Your task to perform on an android device: Go to location settings Image 0: 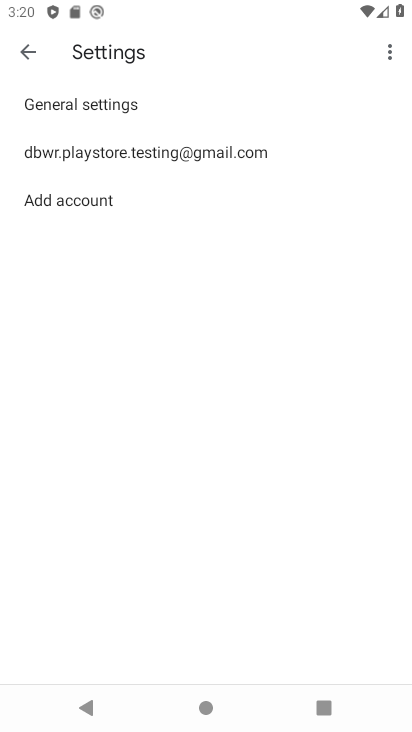
Step 0: press home button
Your task to perform on an android device: Go to location settings Image 1: 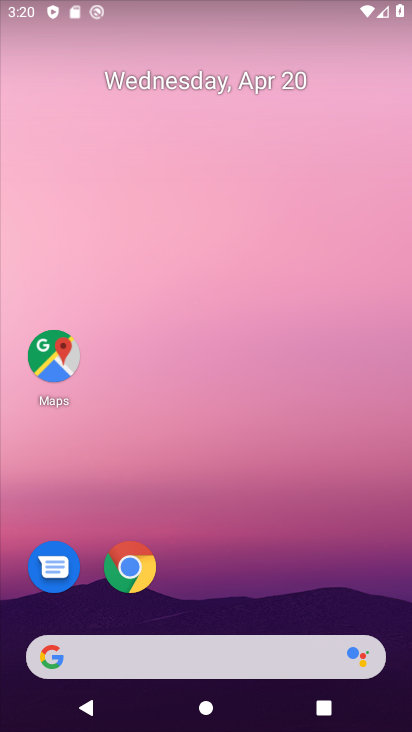
Step 1: drag from (322, 569) to (226, 121)
Your task to perform on an android device: Go to location settings Image 2: 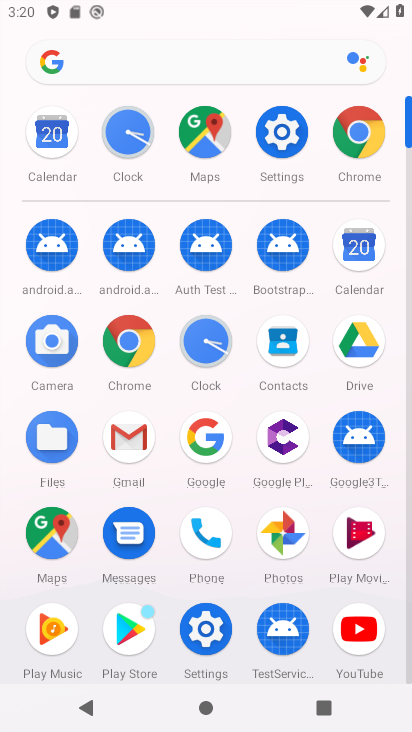
Step 2: click (288, 150)
Your task to perform on an android device: Go to location settings Image 3: 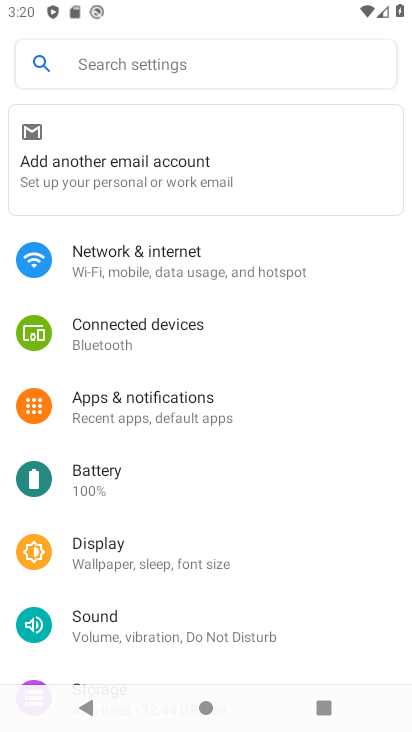
Step 3: drag from (287, 561) to (198, 166)
Your task to perform on an android device: Go to location settings Image 4: 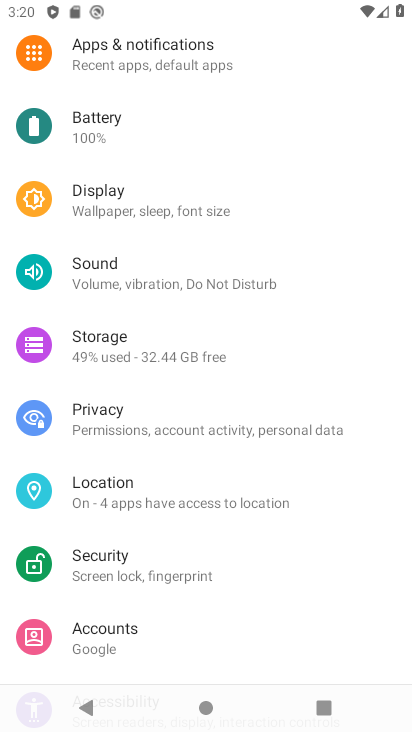
Step 4: click (206, 501)
Your task to perform on an android device: Go to location settings Image 5: 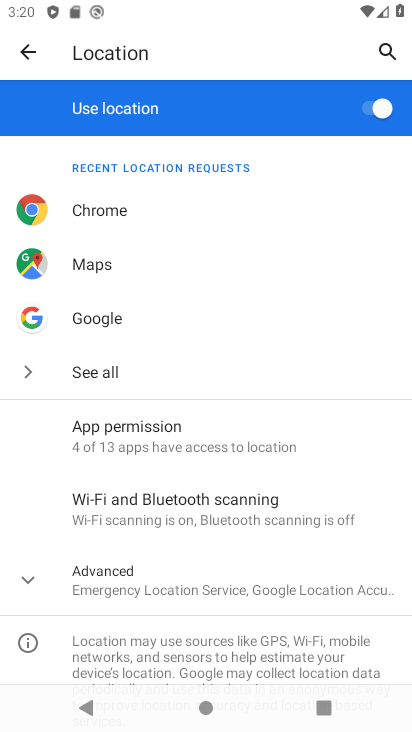
Step 5: task complete